Your task to perform on an android device: change the clock display to show seconds Image 0: 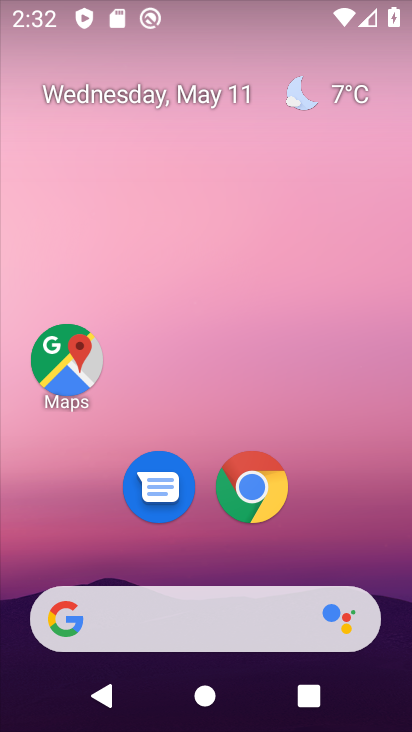
Step 0: drag from (97, 573) to (306, 1)
Your task to perform on an android device: change the clock display to show seconds Image 1: 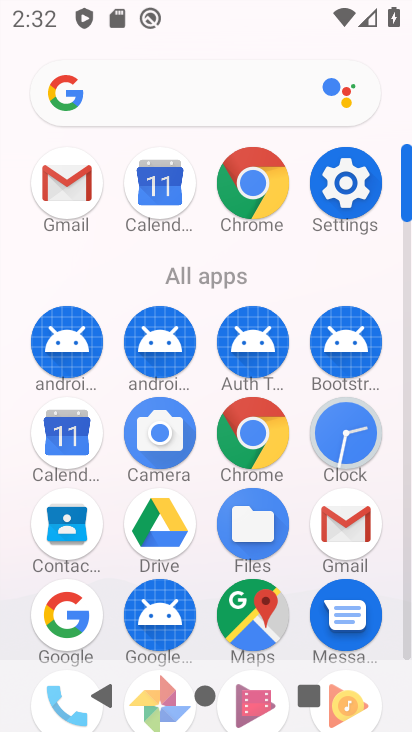
Step 1: click (363, 447)
Your task to perform on an android device: change the clock display to show seconds Image 2: 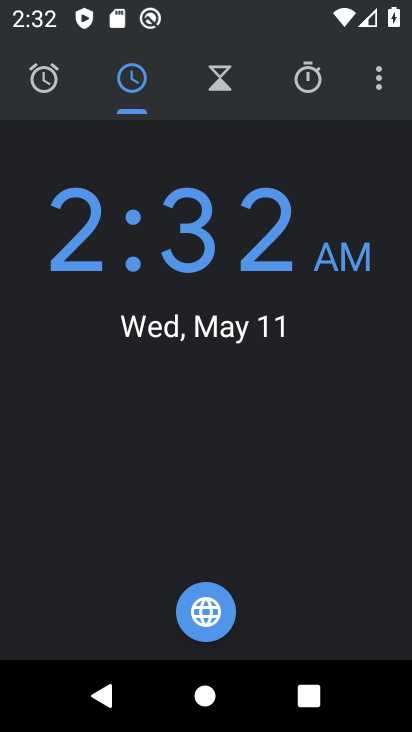
Step 2: click (381, 81)
Your task to perform on an android device: change the clock display to show seconds Image 3: 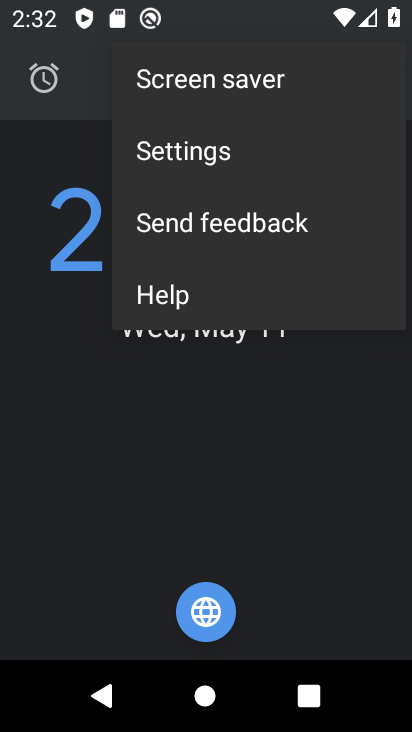
Step 3: click (184, 161)
Your task to perform on an android device: change the clock display to show seconds Image 4: 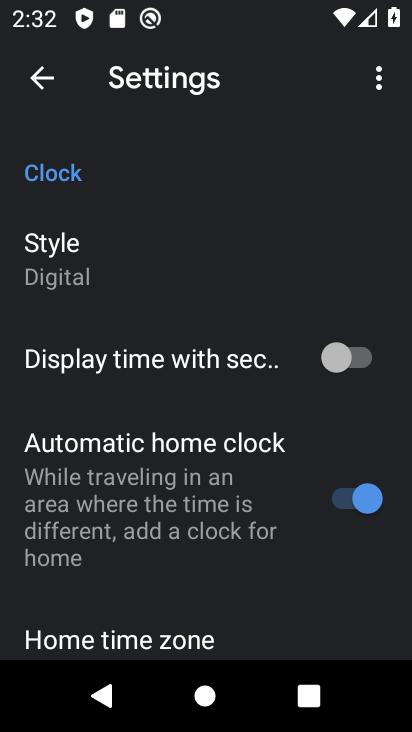
Step 4: click (359, 361)
Your task to perform on an android device: change the clock display to show seconds Image 5: 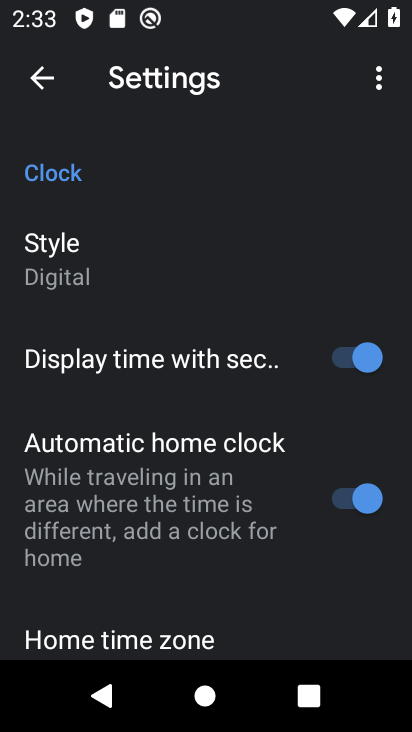
Step 5: task complete